Your task to perform on an android device: Open calendar and show me the first week of next month Image 0: 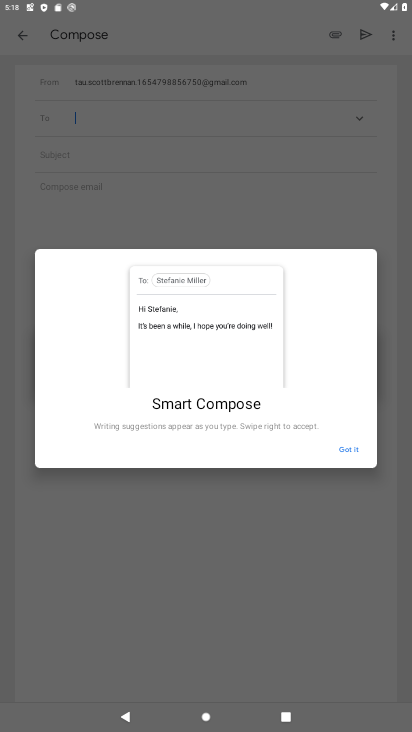
Step 0: press home button
Your task to perform on an android device: Open calendar and show me the first week of next month Image 1: 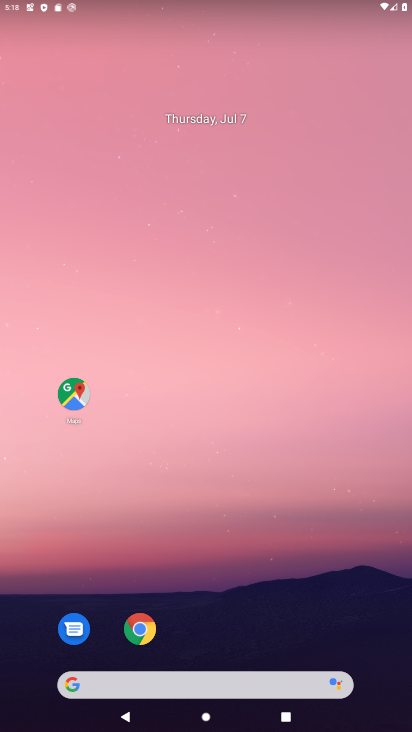
Step 1: drag from (239, 644) to (230, 300)
Your task to perform on an android device: Open calendar and show me the first week of next month Image 2: 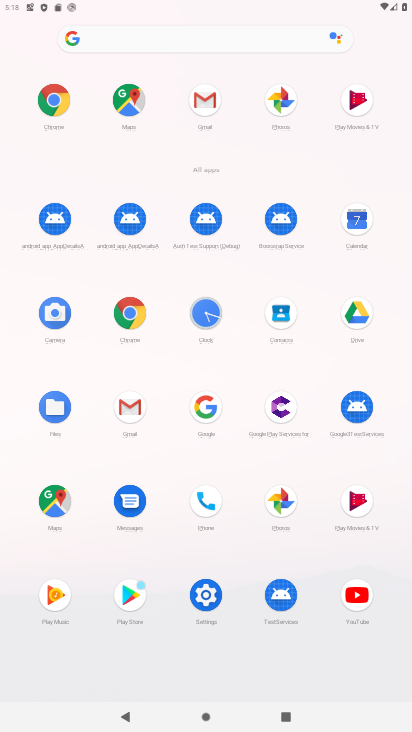
Step 2: click (357, 215)
Your task to perform on an android device: Open calendar and show me the first week of next month Image 3: 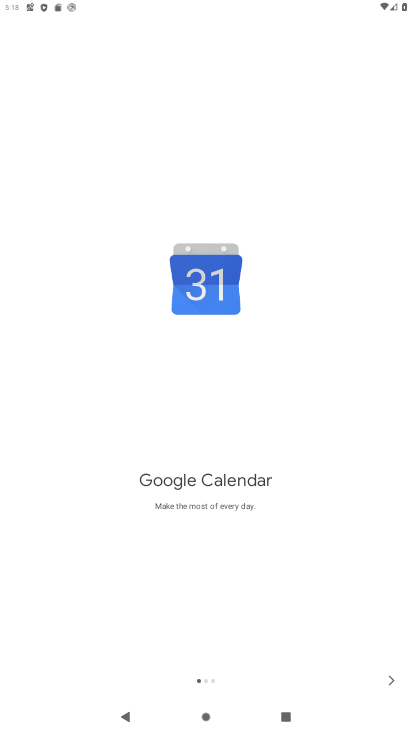
Step 3: click (389, 677)
Your task to perform on an android device: Open calendar and show me the first week of next month Image 4: 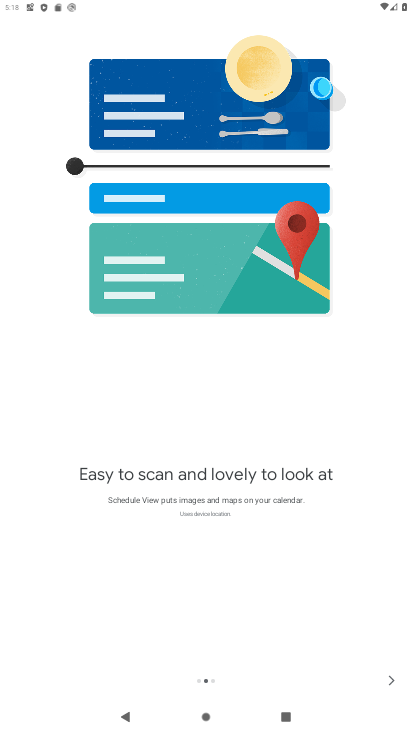
Step 4: click (389, 677)
Your task to perform on an android device: Open calendar and show me the first week of next month Image 5: 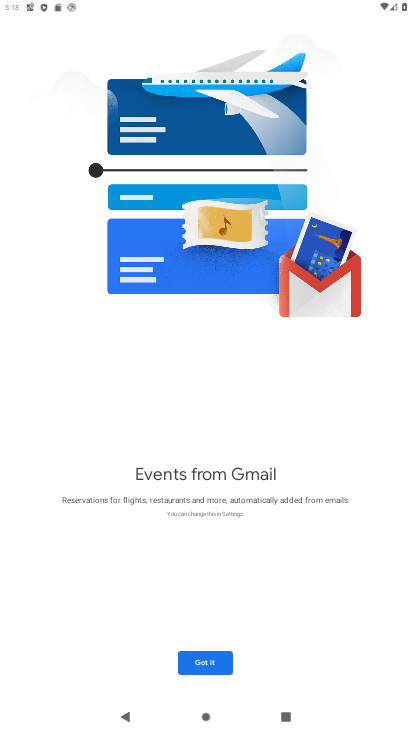
Step 5: click (389, 677)
Your task to perform on an android device: Open calendar and show me the first week of next month Image 6: 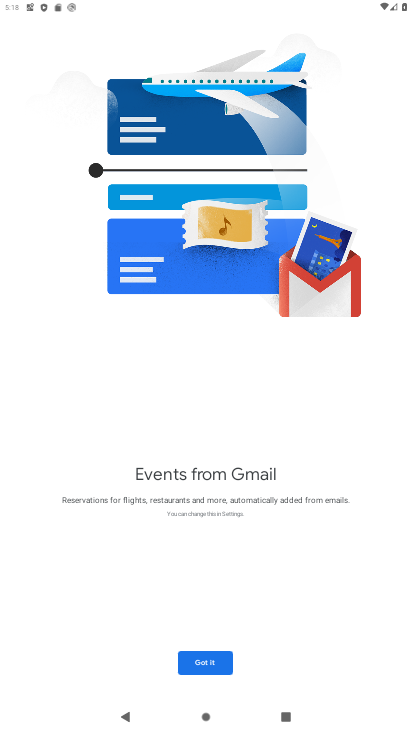
Step 6: click (184, 659)
Your task to perform on an android device: Open calendar and show me the first week of next month Image 7: 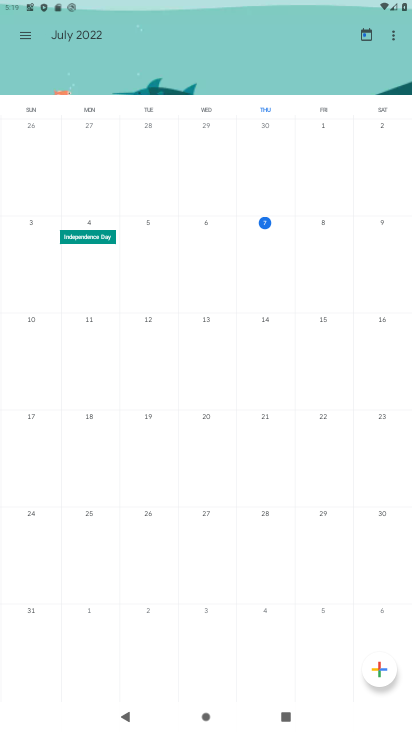
Step 7: drag from (368, 275) to (50, 353)
Your task to perform on an android device: Open calendar and show me the first week of next month Image 8: 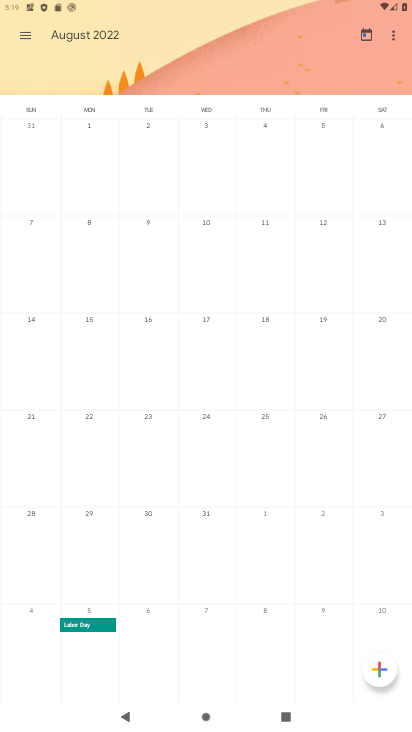
Step 8: click (256, 130)
Your task to perform on an android device: Open calendar and show me the first week of next month Image 9: 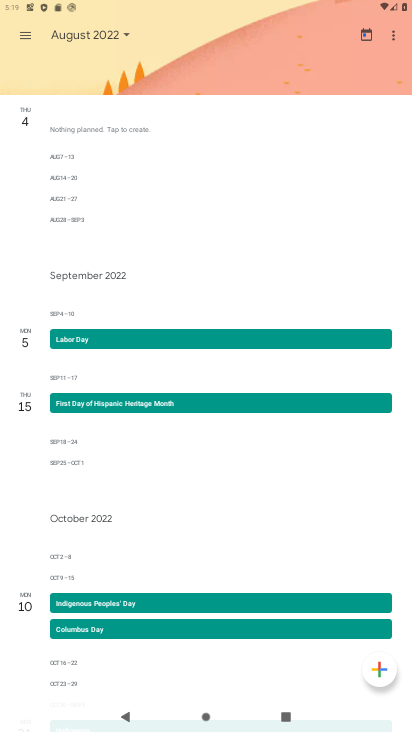
Step 9: task complete